Your task to perform on an android device: Show me productivity apps on the Play Store Image 0: 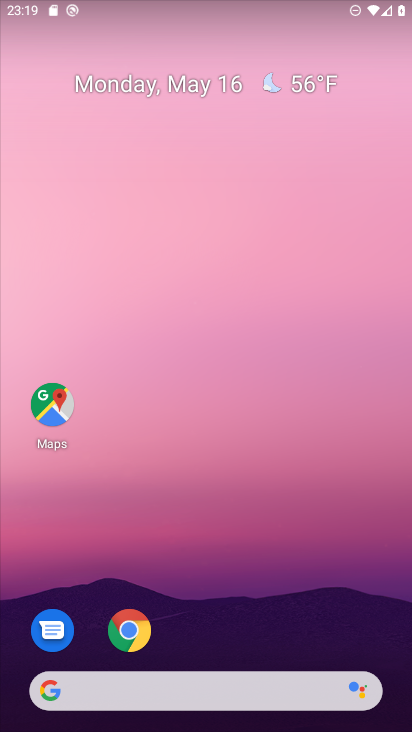
Step 0: drag from (269, 634) to (246, 177)
Your task to perform on an android device: Show me productivity apps on the Play Store Image 1: 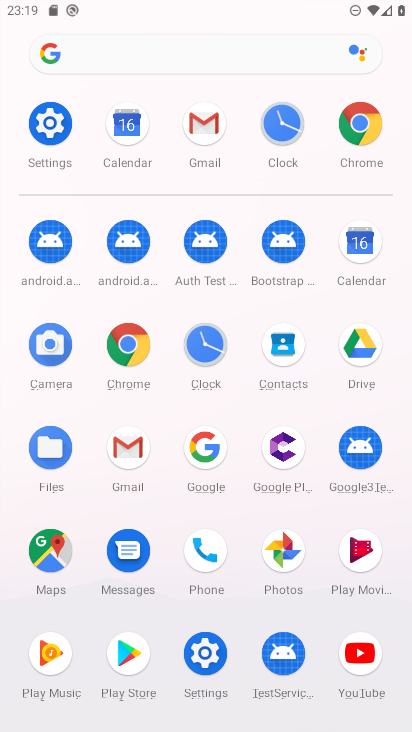
Step 1: click (137, 653)
Your task to perform on an android device: Show me productivity apps on the Play Store Image 2: 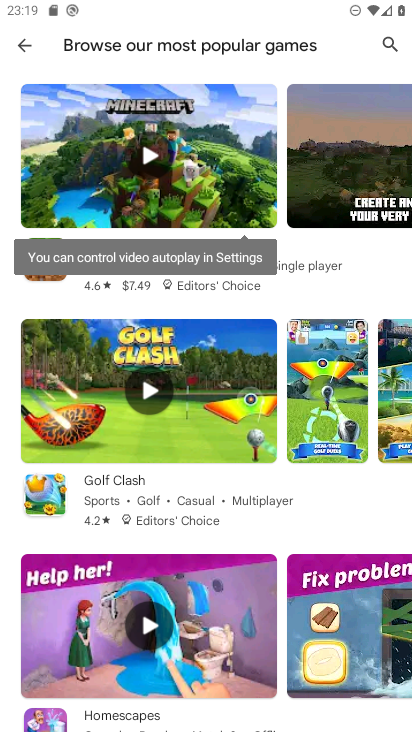
Step 2: click (26, 44)
Your task to perform on an android device: Show me productivity apps on the Play Store Image 3: 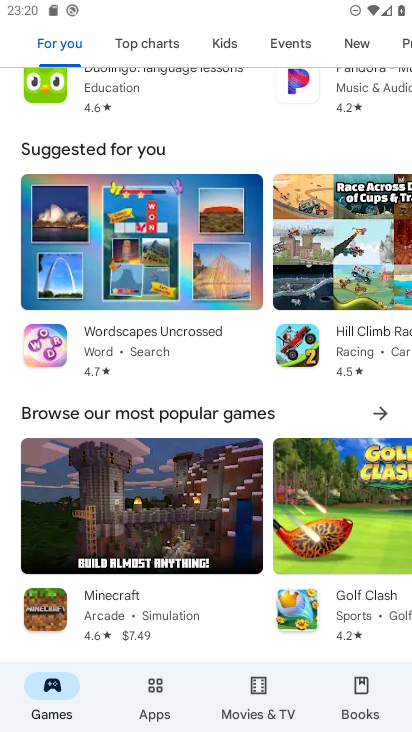
Step 3: click (145, 695)
Your task to perform on an android device: Show me productivity apps on the Play Store Image 4: 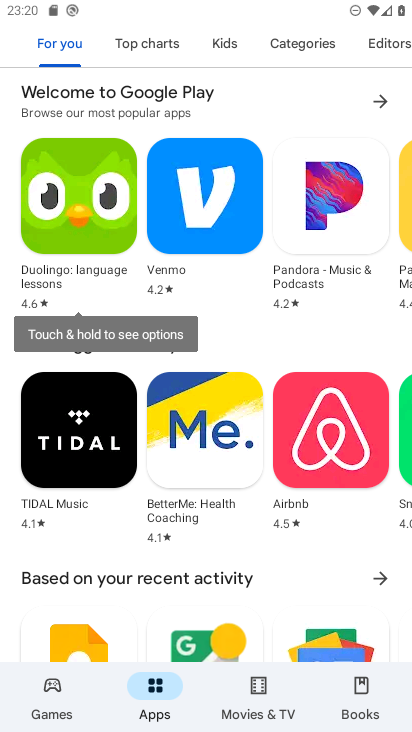
Step 4: click (313, 34)
Your task to perform on an android device: Show me productivity apps on the Play Store Image 5: 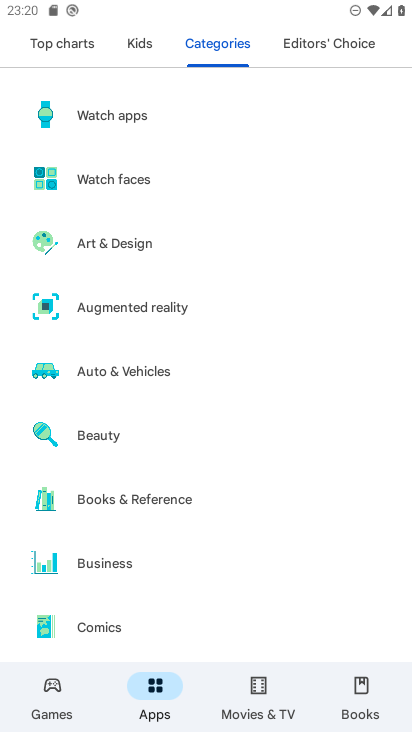
Step 5: drag from (227, 540) to (248, 87)
Your task to perform on an android device: Show me productivity apps on the Play Store Image 6: 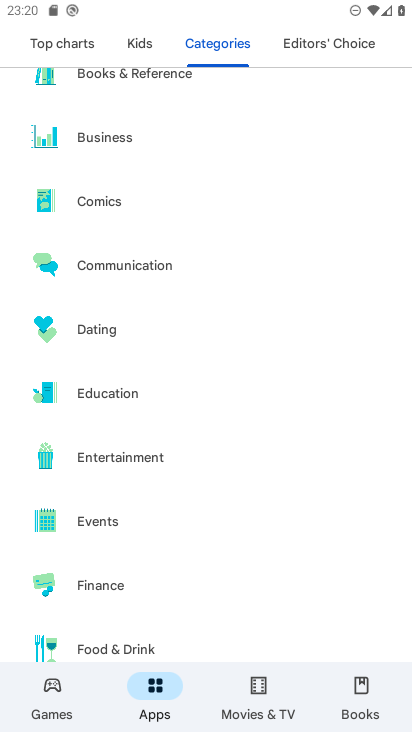
Step 6: drag from (212, 539) to (311, 83)
Your task to perform on an android device: Show me productivity apps on the Play Store Image 7: 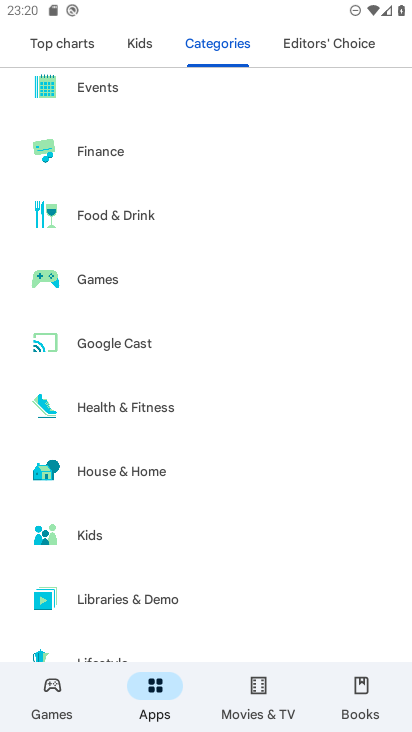
Step 7: drag from (214, 555) to (267, 106)
Your task to perform on an android device: Show me productivity apps on the Play Store Image 8: 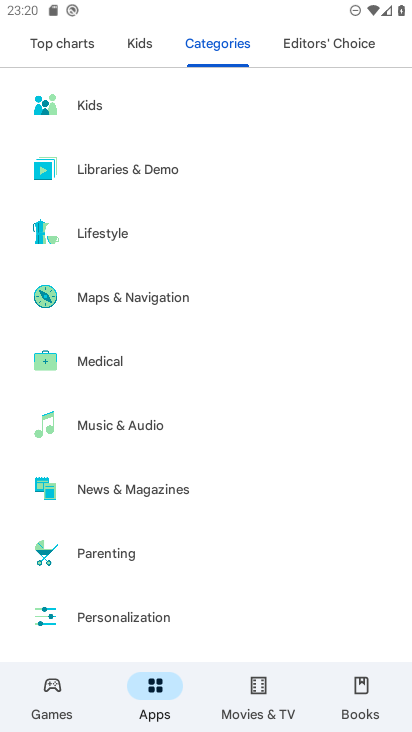
Step 8: drag from (180, 592) to (210, 303)
Your task to perform on an android device: Show me productivity apps on the Play Store Image 9: 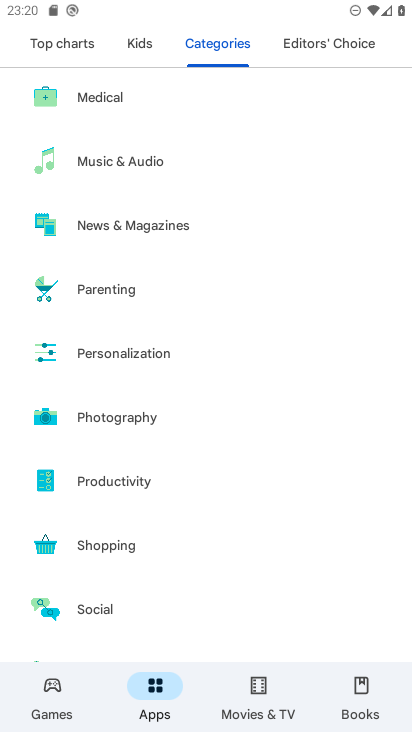
Step 9: click (135, 481)
Your task to perform on an android device: Show me productivity apps on the Play Store Image 10: 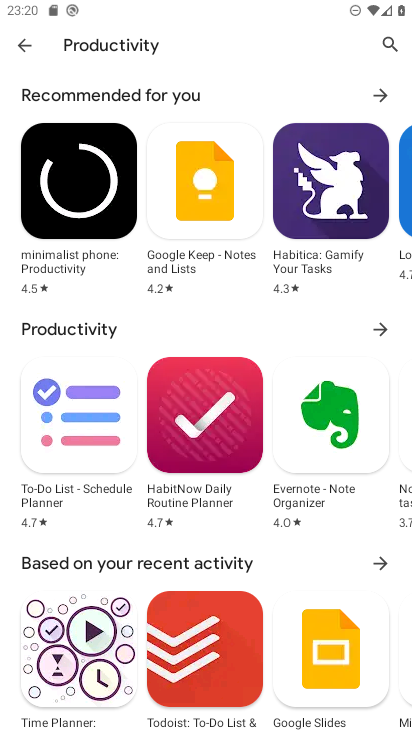
Step 10: task complete